Your task to perform on an android device: set default search engine in the chrome app Image 0: 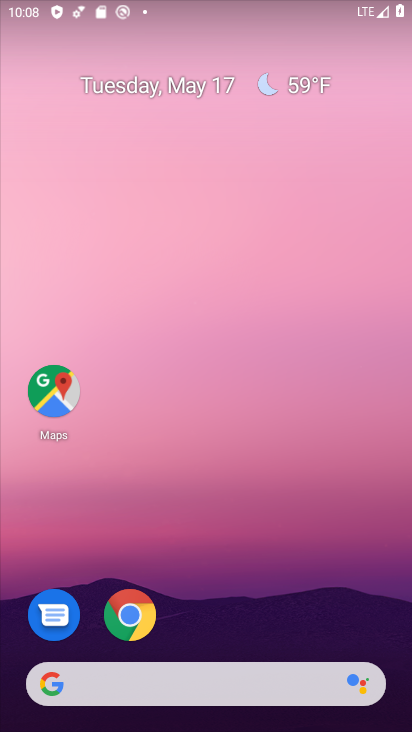
Step 0: click (142, 608)
Your task to perform on an android device: set default search engine in the chrome app Image 1: 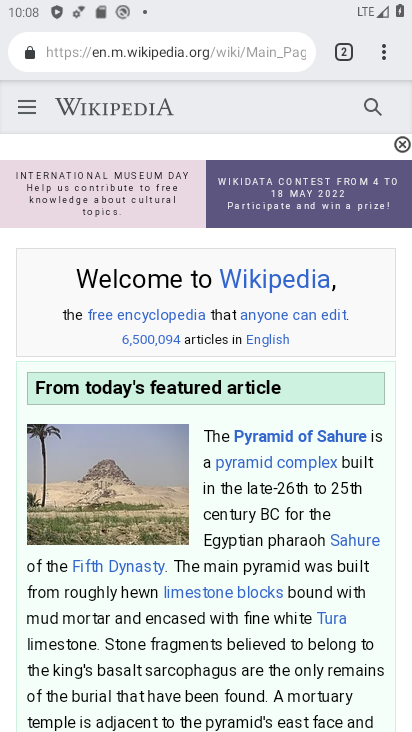
Step 1: drag from (382, 54) to (254, 635)
Your task to perform on an android device: set default search engine in the chrome app Image 2: 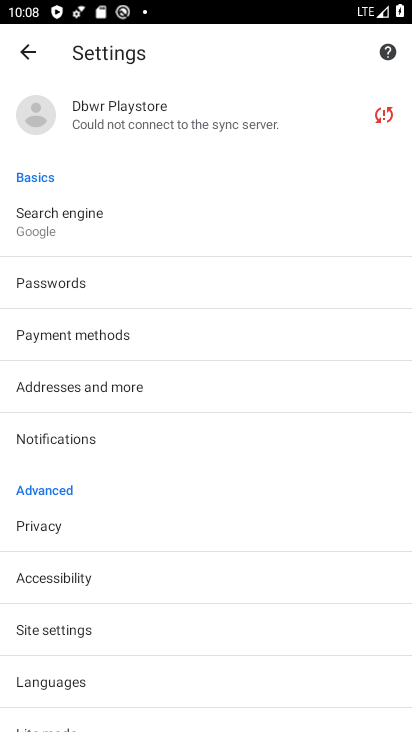
Step 2: click (68, 224)
Your task to perform on an android device: set default search engine in the chrome app Image 3: 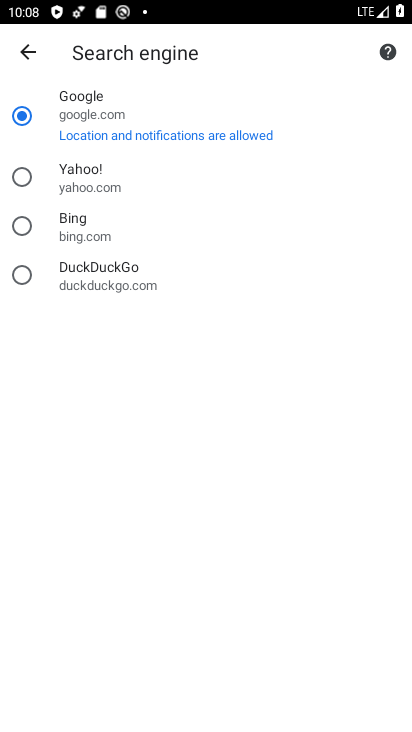
Step 3: click (25, 181)
Your task to perform on an android device: set default search engine in the chrome app Image 4: 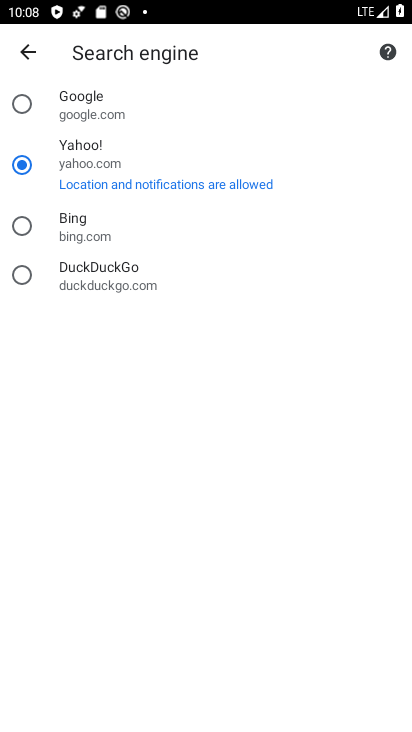
Step 4: task complete